Your task to perform on an android device: Go to wifi settings Image 0: 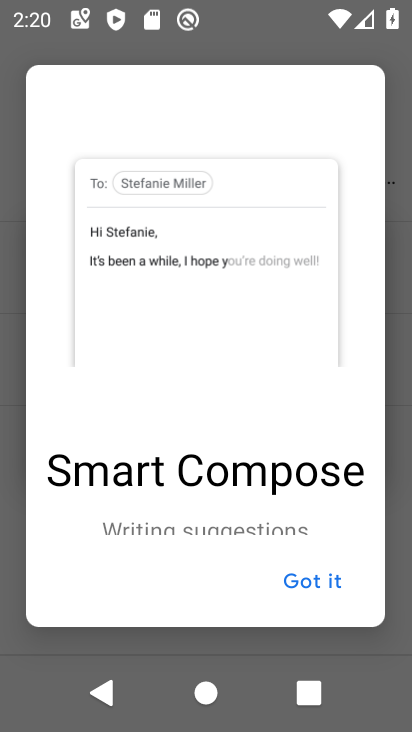
Step 0: click (338, 578)
Your task to perform on an android device: Go to wifi settings Image 1: 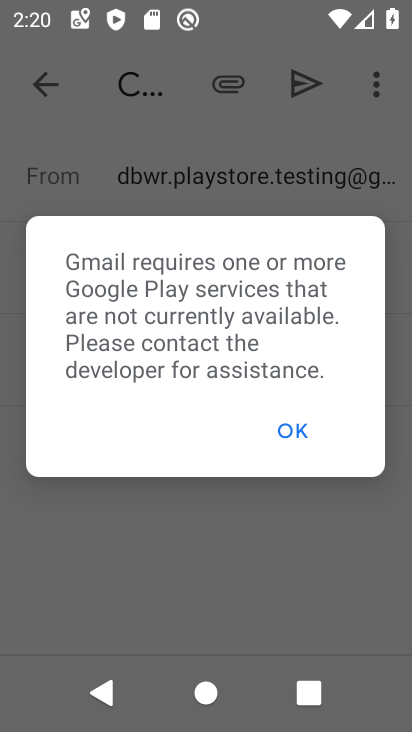
Step 1: click (282, 410)
Your task to perform on an android device: Go to wifi settings Image 2: 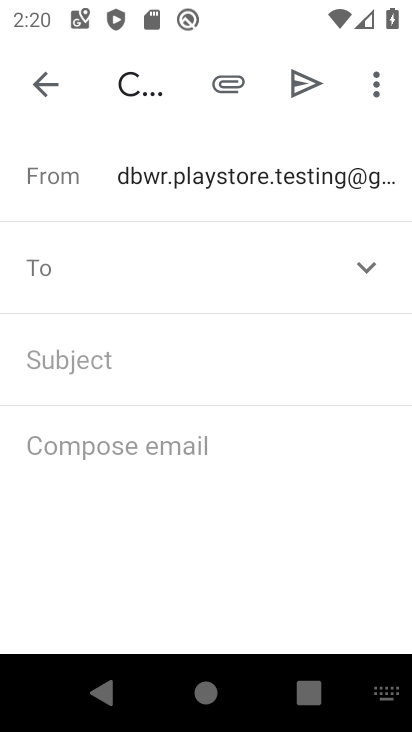
Step 2: press home button
Your task to perform on an android device: Go to wifi settings Image 3: 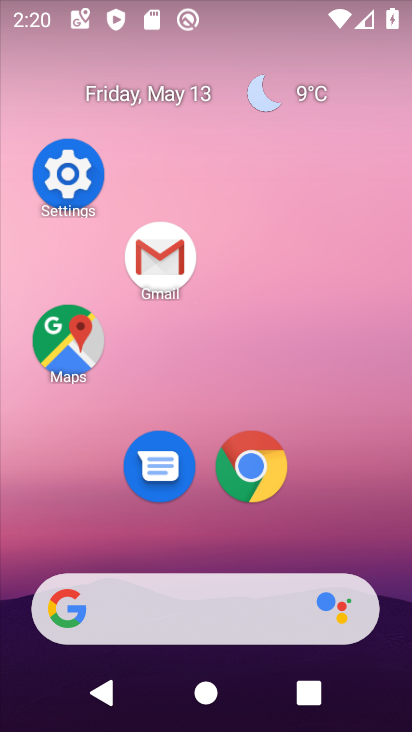
Step 3: click (57, 201)
Your task to perform on an android device: Go to wifi settings Image 4: 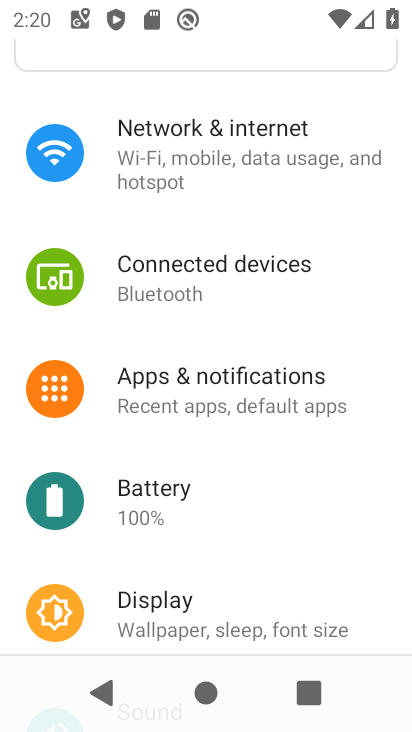
Step 4: click (247, 154)
Your task to perform on an android device: Go to wifi settings Image 5: 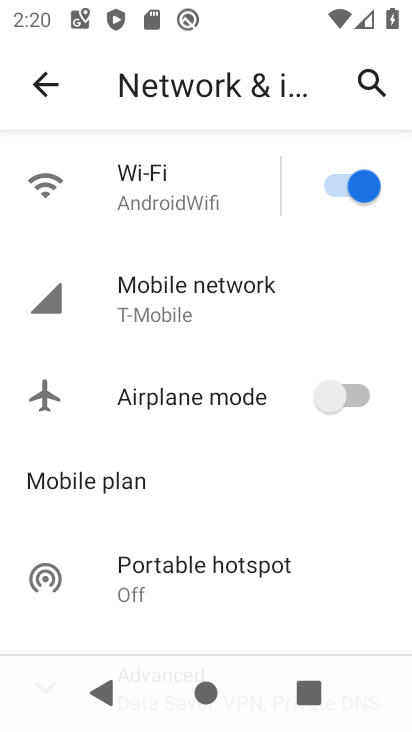
Step 5: click (211, 184)
Your task to perform on an android device: Go to wifi settings Image 6: 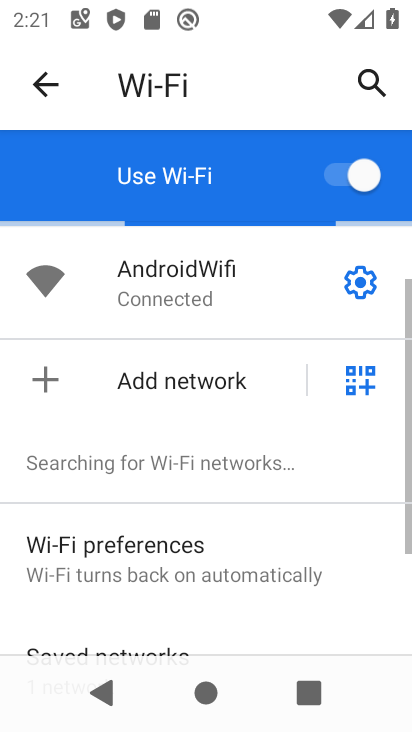
Step 6: click (361, 279)
Your task to perform on an android device: Go to wifi settings Image 7: 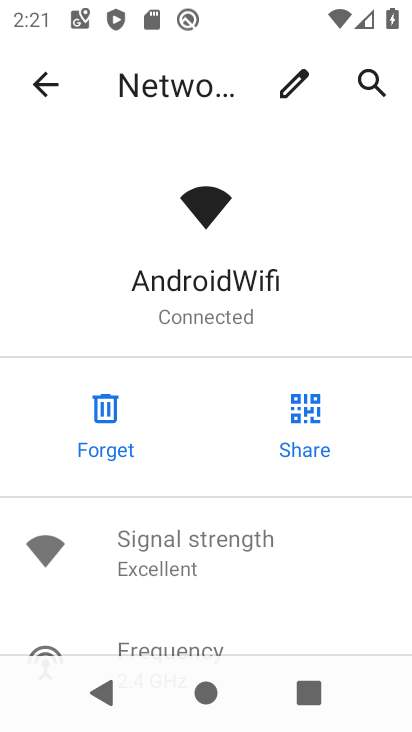
Step 7: task complete